Your task to perform on an android device: all mails in gmail Image 0: 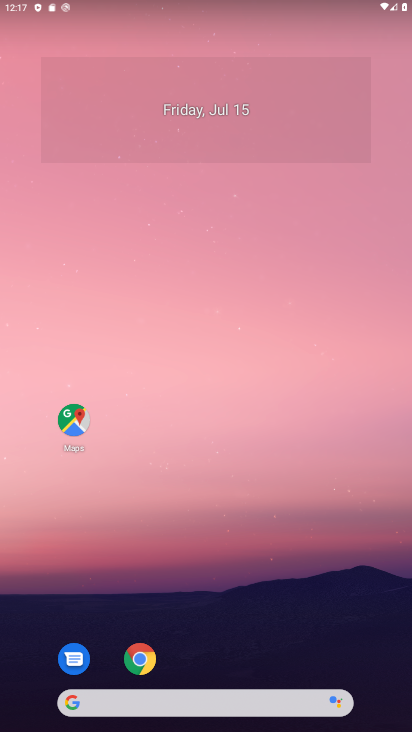
Step 0: drag from (220, 511) to (209, 2)
Your task to perform on an android device: all mails in gmail Image 1: 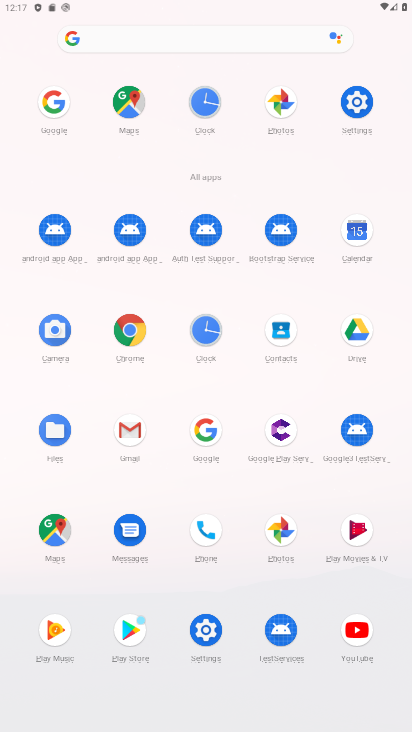
Step 1: click (125, 436)
Your task to perform on an android device: all mails in gmail Image 2: 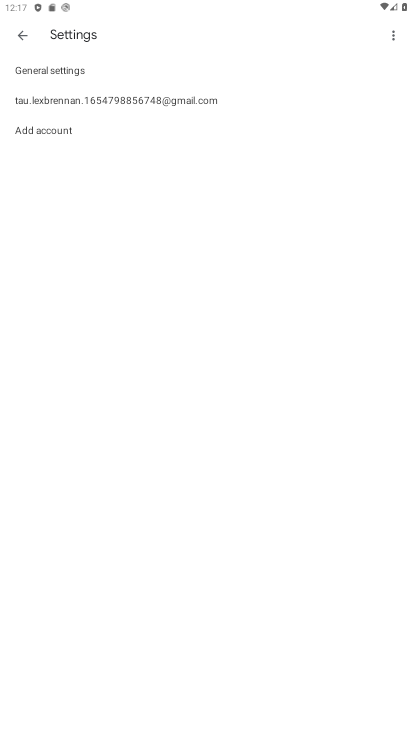
Step 2: click (27, 42)
Your task to perform on an android device: all mails in gmail Image 3: 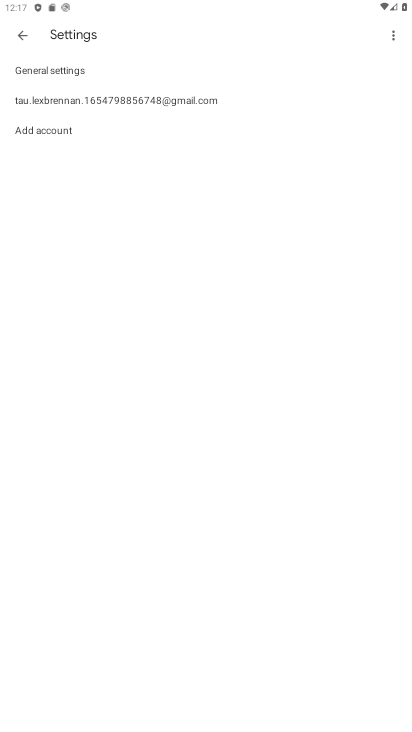
Step 3: click (25, 36)
Your task to perform on an android device: all mails in gmail Image 4: 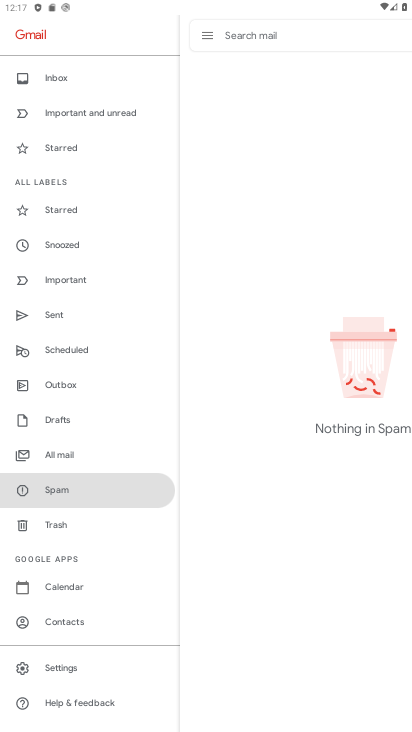
Step 4: click (65, 460)
Your task to perform on an android device: all mails in gmail Image 5: 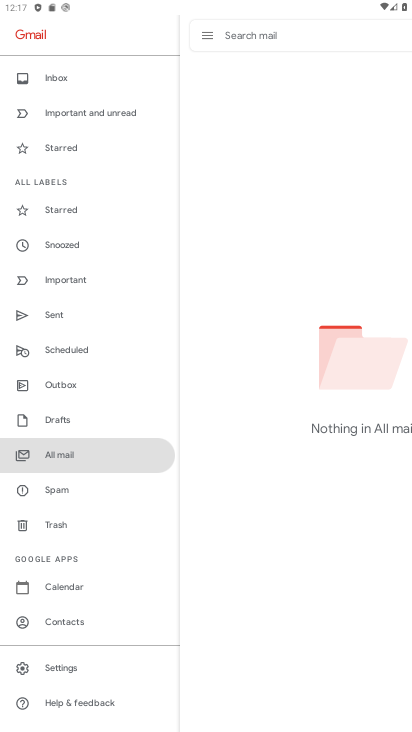
Step 5: task complete